Your task to perform on an android device: Open Yahoo.com Image 0: 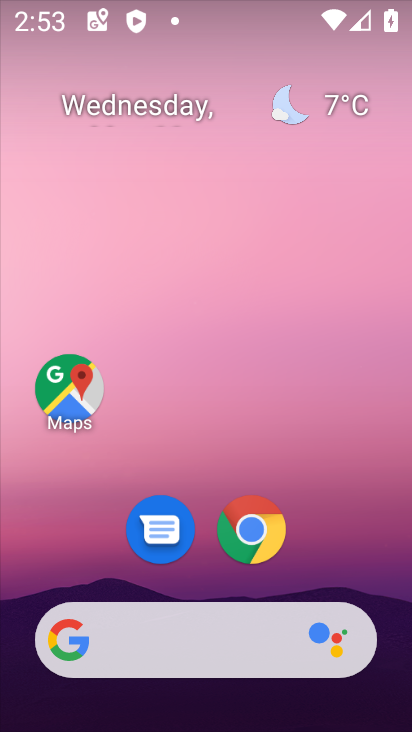
Step 0: click (249, 530)
Your task to perform on an android device: Open Yahoo.com Image 1: 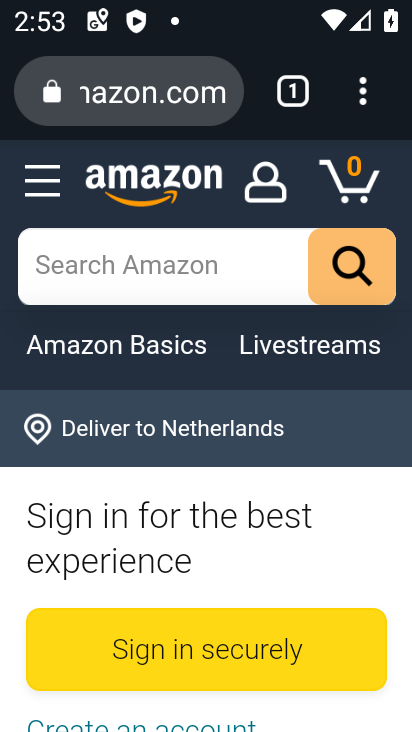
Step 1: click (311, 94)
Your task to perform on an android device: Open Yahoo.com Image 2: 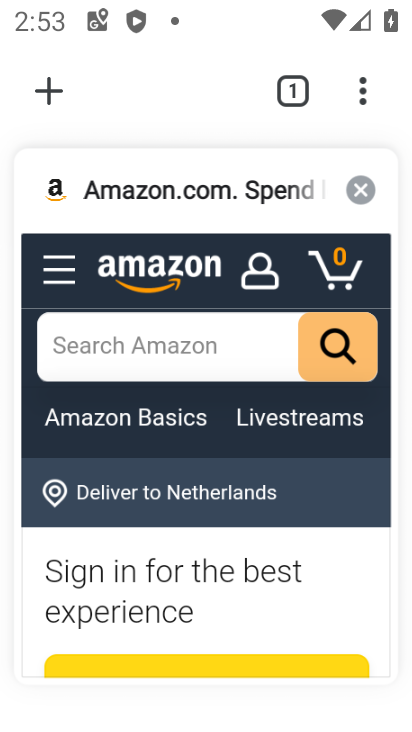
Step 2: click (357, 188)
Your task to perform on an android device: Open Yahoo.com Image 3: 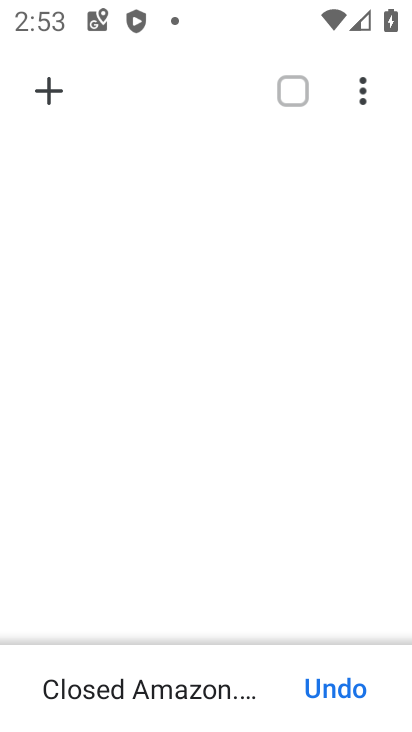
Step 3: click (56, 92)
Your task to perform on an android device: Open Yahoo.com Image 4: 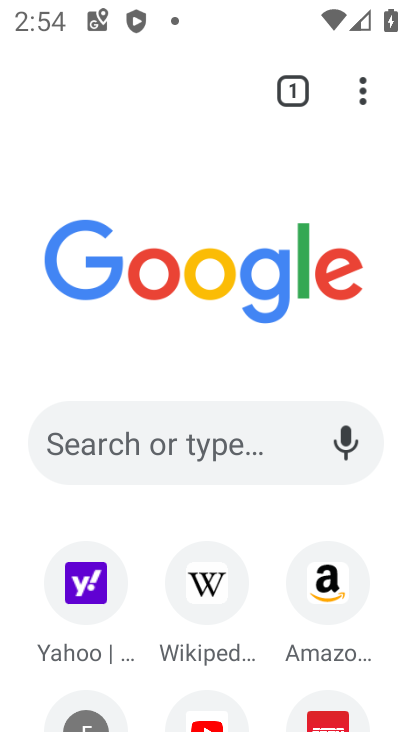
Step 4: click (72, 575)
Your task to perform on an android device: Open Yahoo.com Image 5: 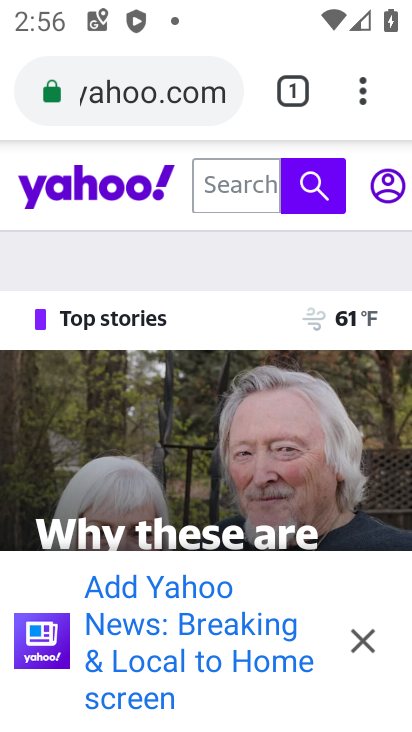
Step 5: task complete